Your task to perform on an android device: Go to privacy settings Image 0: 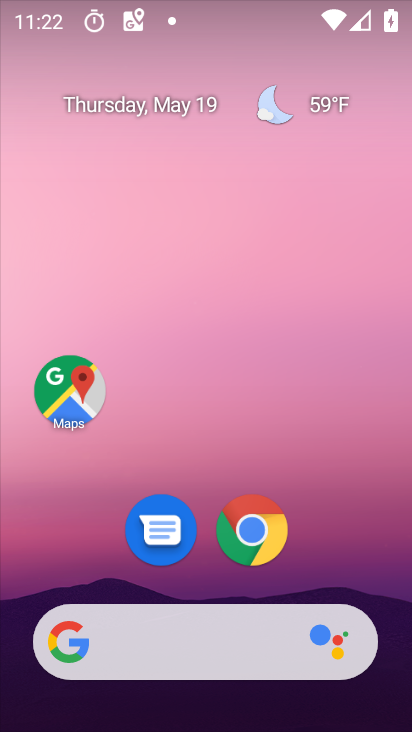
Step 0: drag from (384, 553) to (338, 109)
Your task to perform on an android device: Go to privacy settings Image 1: 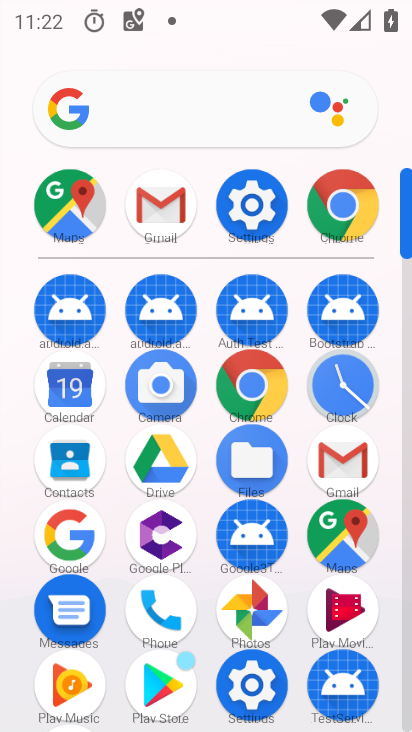
Step 1: click (248, 219)
Your task to perform on an android device: Go to privacy settings Image 2: 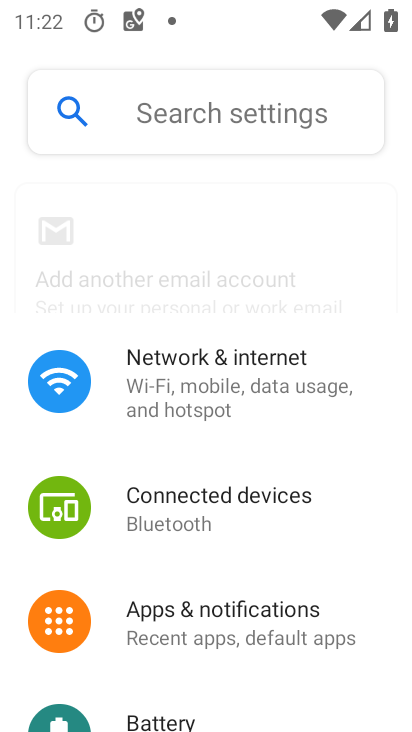
Step 2: drag from (172, 609) to (214, 330)
Your task to perform on an android device: Go to privacy settings Image 3: 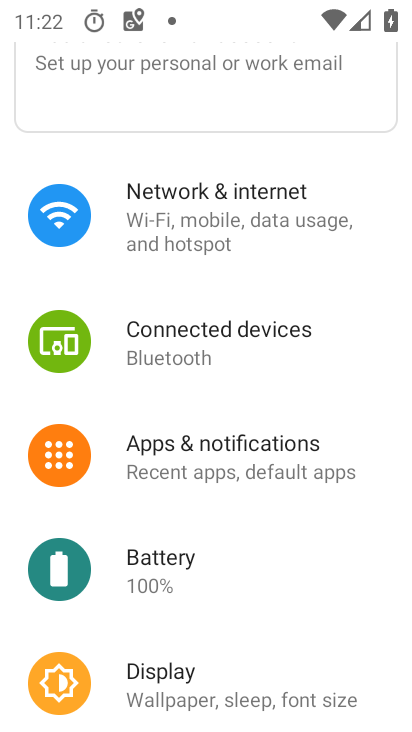
Step 3: drag from (183, 668) to (234, 322)
Your task to perform on an android device: Go to privacy settings Image 4: 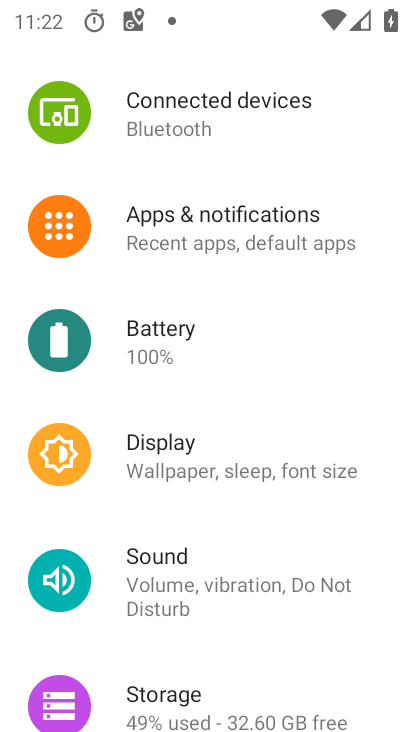
Step 4: drag from (181, 658) to (296, 280)
Your task to perform on an android device: Go to privacy settings Image 5: 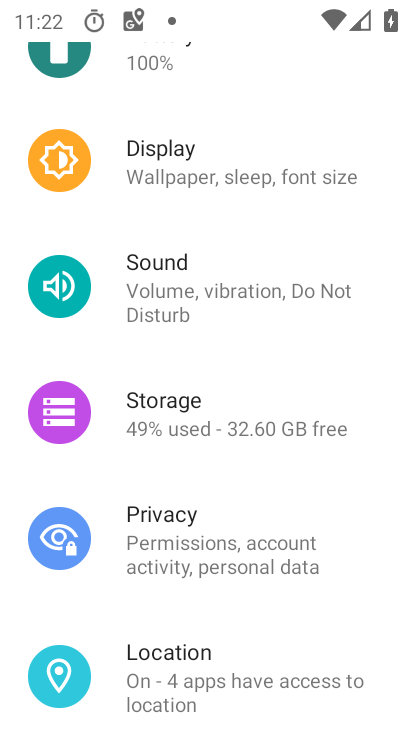
Step 5: click (196, 517)
Your task to perform on an android device: Go to privacy settings Image 6: 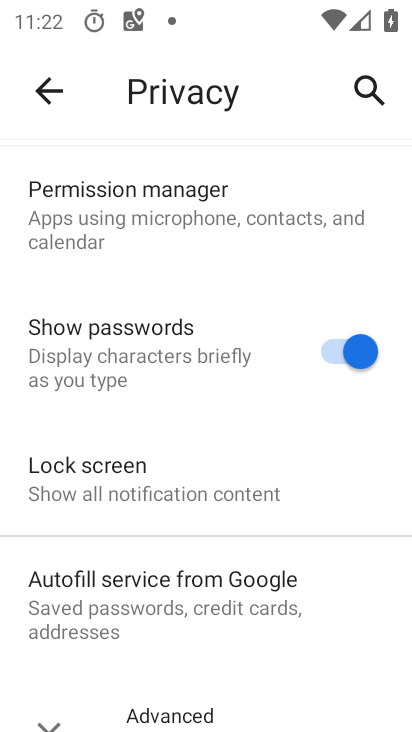
Step 6: task complete